Your task to perform on an android device: change the clock display to digital Image 0: 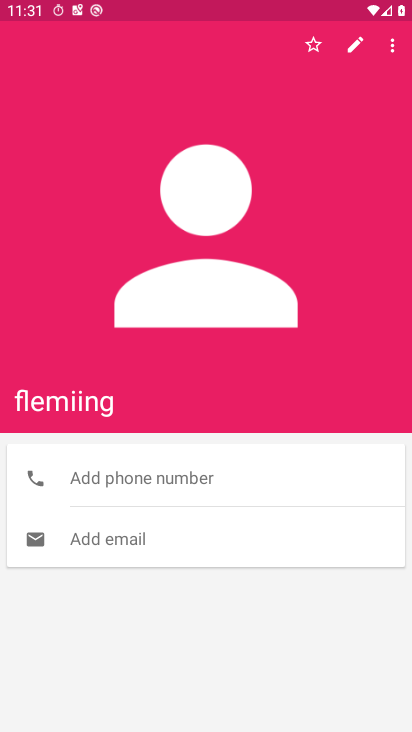
Step 0: press home button
Your task to perform on an android device: change the clock display to digital Image 1: 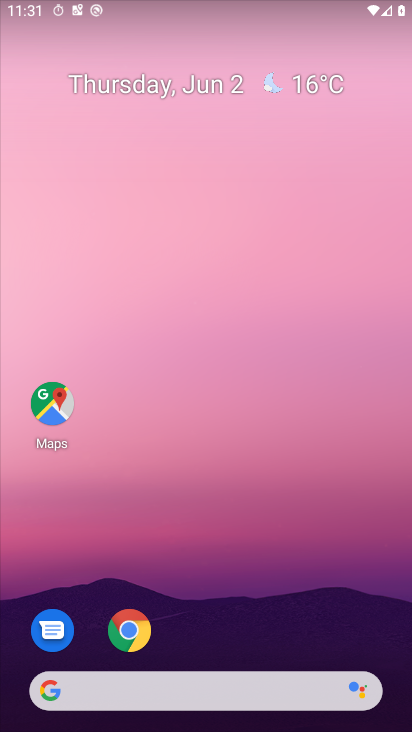
Step 1: drag from (268, 636) to (255, 3)
Your task to perform on an android device: change the clock display to digital Image 2: 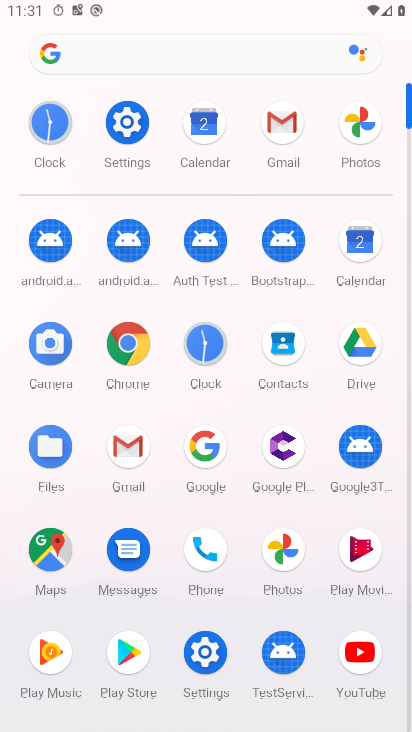
Step 2: click (214, 358)
Your task to perform on an android device: change the clock display to digital Image 3: 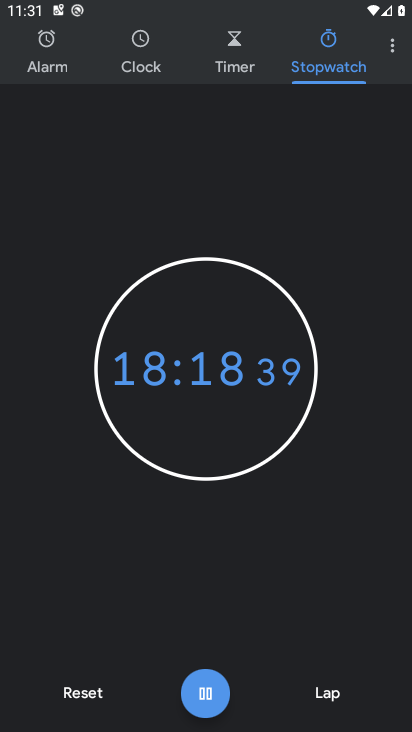
Step 3: click (391, 48)
Your task to perform on an android device: change the clock display to digital Image 4: 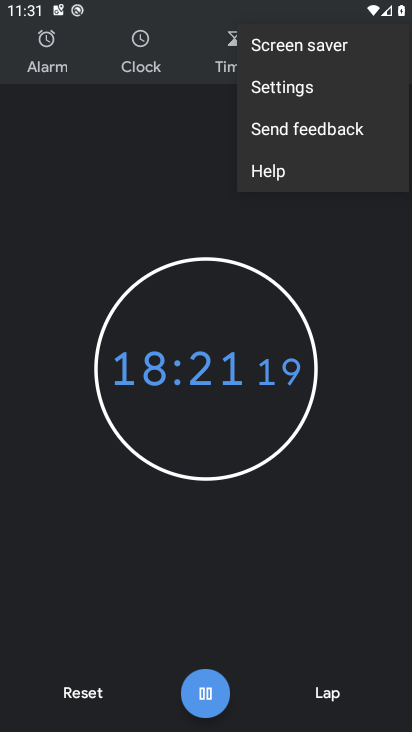
Step 4: click (296, 90)
Your task to perform on an android device: change the clock display to digital Image 5: 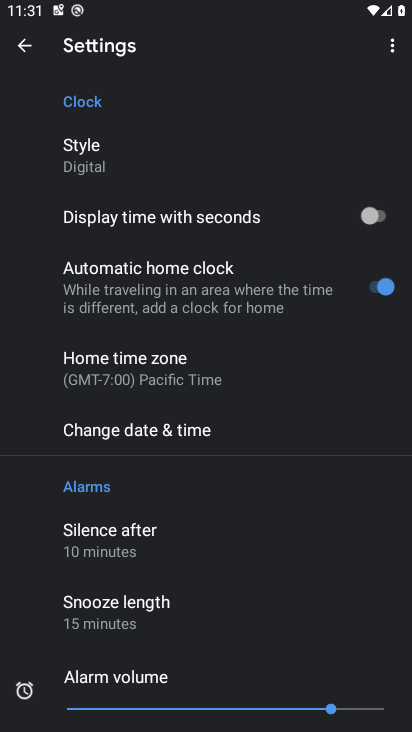
Step 5: click (123, 170)
Your task to perform on an android device: change the clock display to digital Image 6: 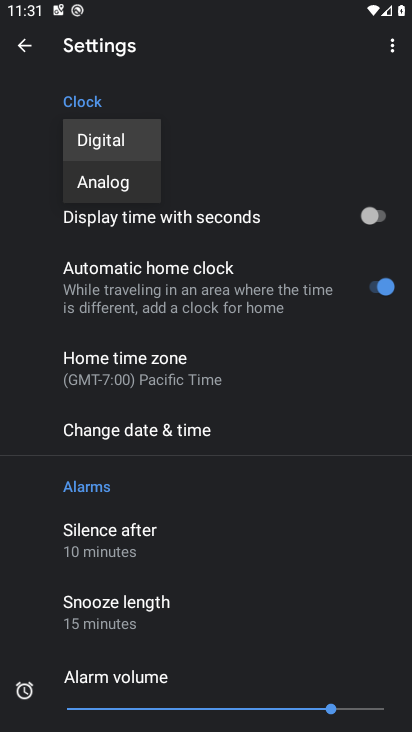
Step 6: task complete